Your task to perform on an android device: change notification settings in the gmail app Image 0: 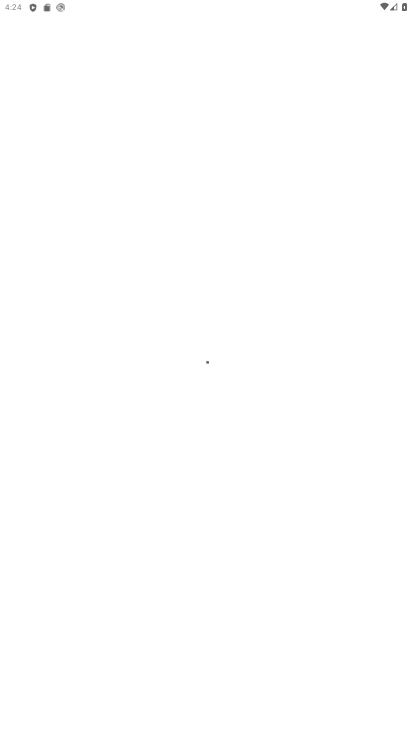
Step 0: press home button
Your task to perform on an android device: change notification settings in the gmail app Image 1: 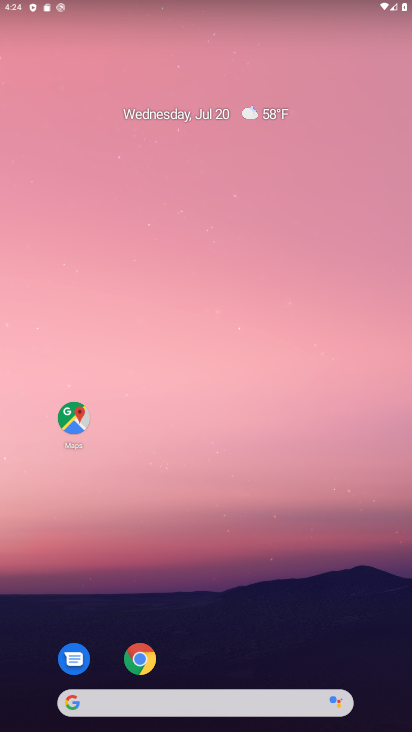
Step 1: drag from (179, 711) to (306, 13)
Your task to perform on an android device: change notification settings in the gmail app Image 2: 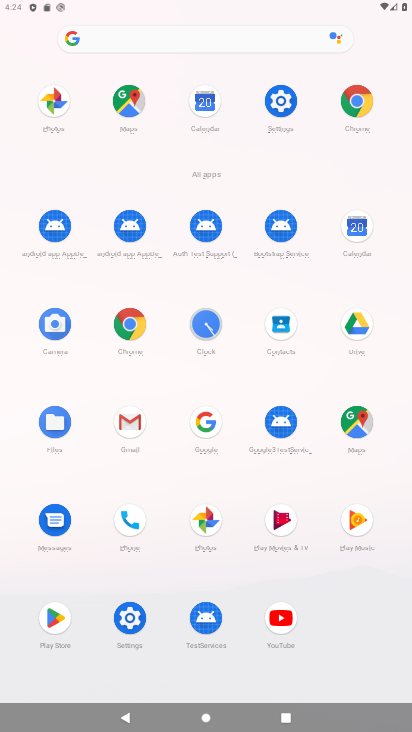
Step 2: click (136, 414)
Your task to perform on an android device: change notification settings in the gmail app Image 3: 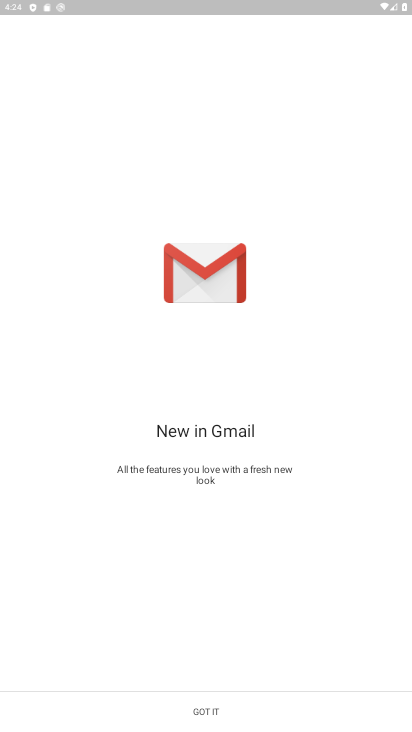
Step 3: click (212, 717)
Your task to perform on an android device: change notification settings in the gmail app Image 4: 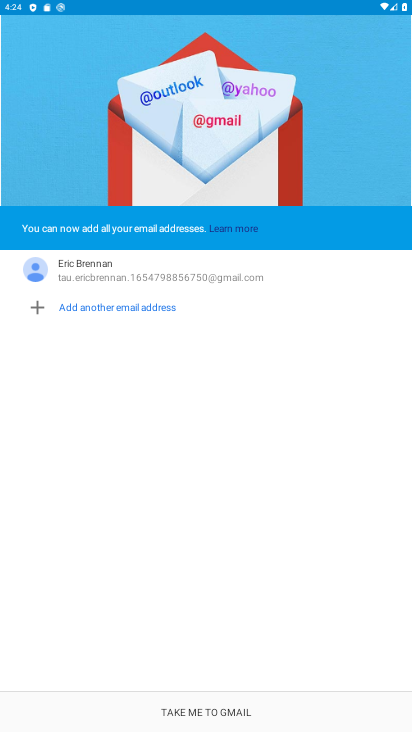
Step 4: click (212, 717)
Your task to perform on an android device: change notification settings in the gmail app Image 5: 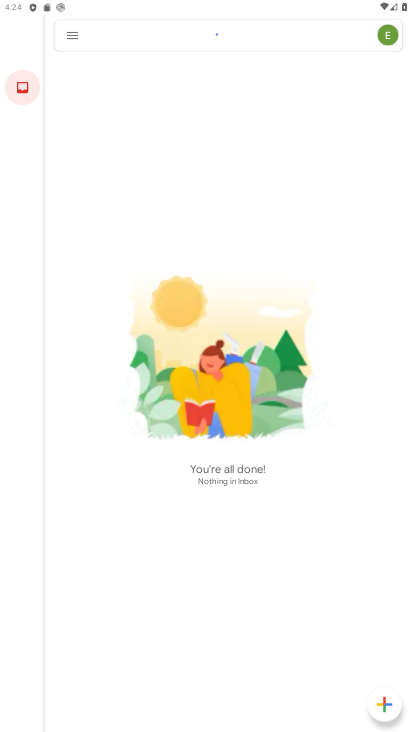
Step 5: click (60, 33)
Your task to perform on an android device: change notification settings in the gmail app Image 6: 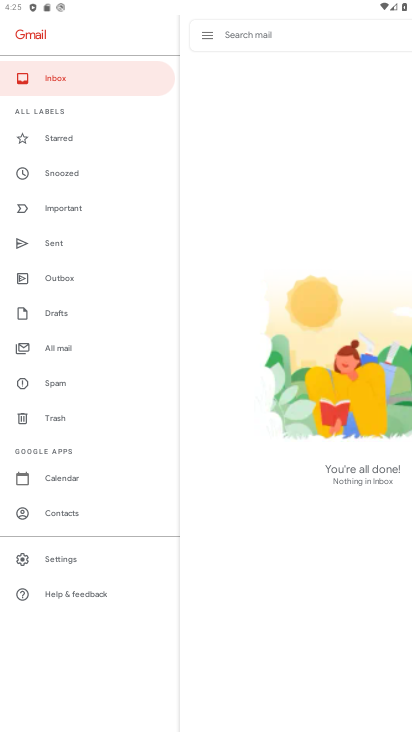
Step 6: click (71, 561)
Your task to perform on an android device: change notification settings in the gmail app Image 7: 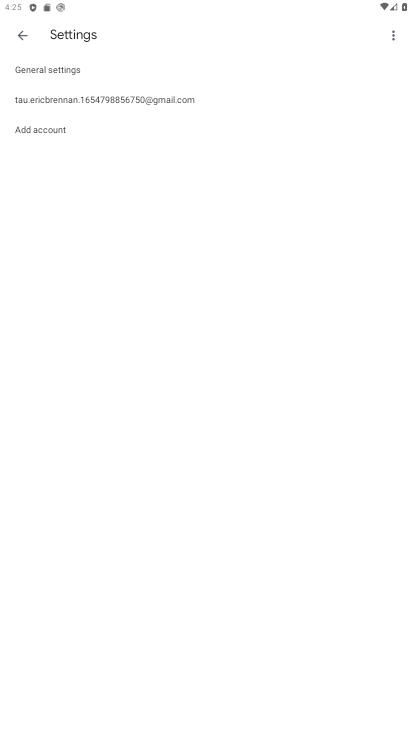
Step 7: click (161, 108)
Your task to perform on an android device: change notification settings in the gmail app Image 8: 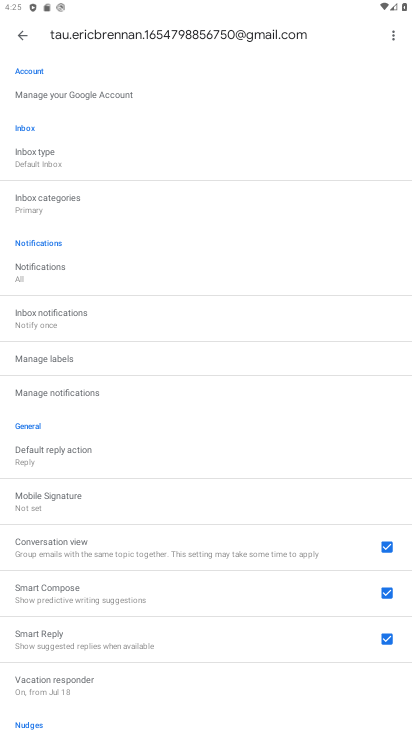
Step 8: click (71, 386)
Your task to perform on an android device: change notification settings in the gmail app Image 9: 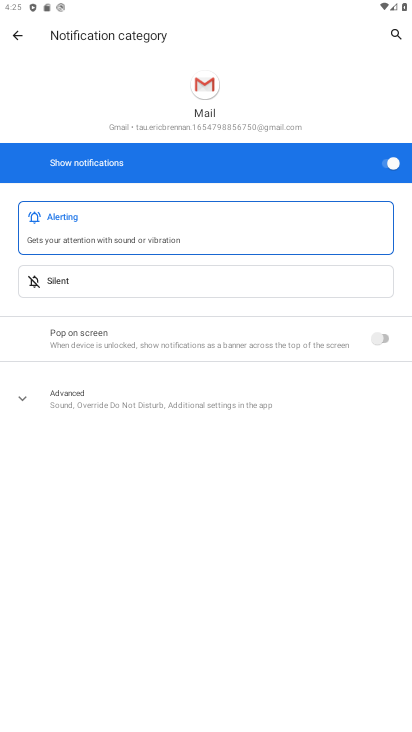
Step 9: click (394, 160)
Your task to perform on an android device: change notification settings in the gmail app Image 10: 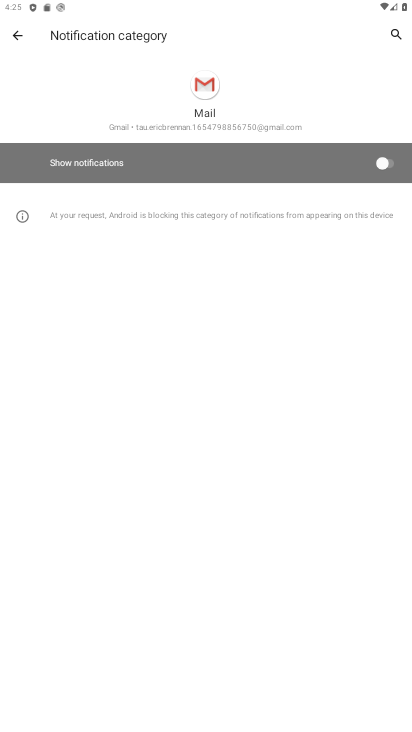
Step 10: task complete